Your task to perform on an android device: make emails show in primary in the gmail app Image 0: 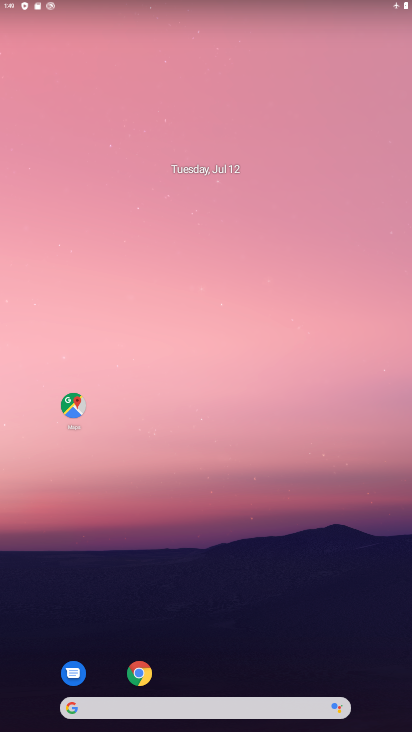
Step 0: drag from (311, 643) to (311, 134)
Your task to perform on an android device: make emails show in primary in the gmail app Image 1: 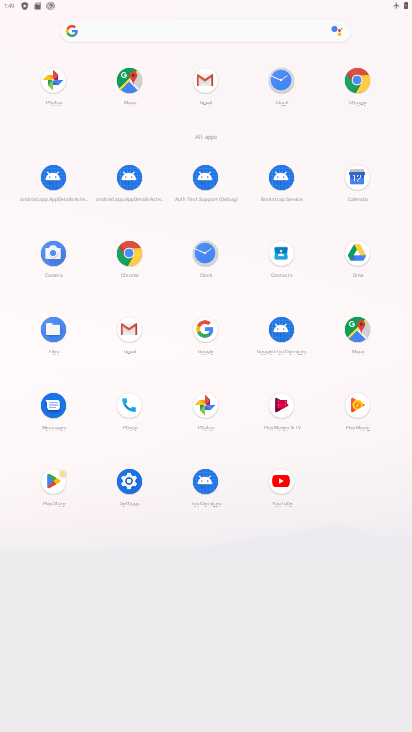
Step 1: click (136, 331)
Your task to perform on an android device: make emails show in primary in the gmail app Image 2: 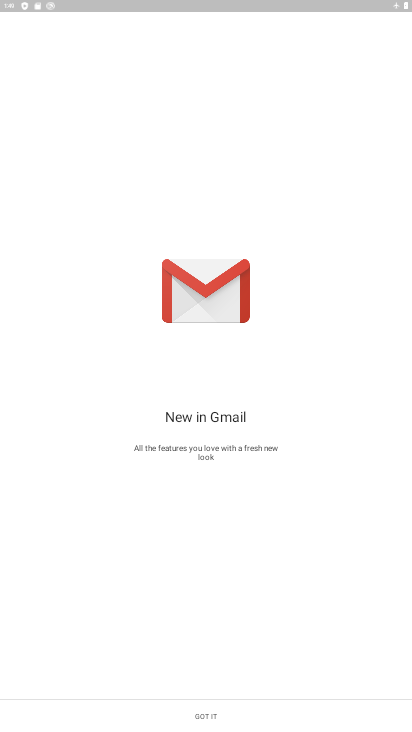
Step 2: click (228, 704)
Your task to perform on an android device: make emails show in primary in the gmail app Image 3: 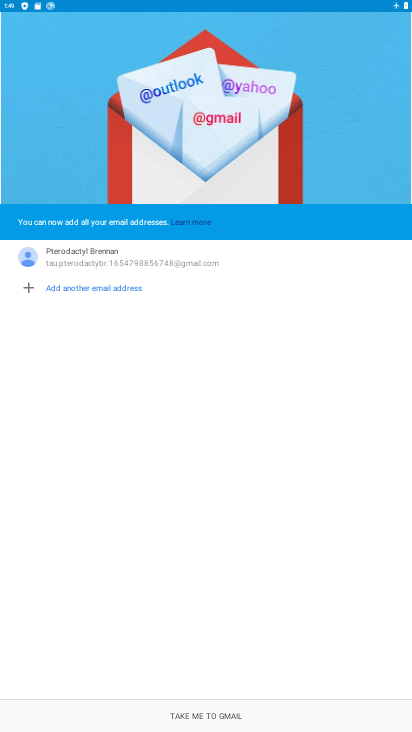
Step 3: click (179, 715)
Your task to perform on an android device: make emails show in primary in the gmail app Image 4: 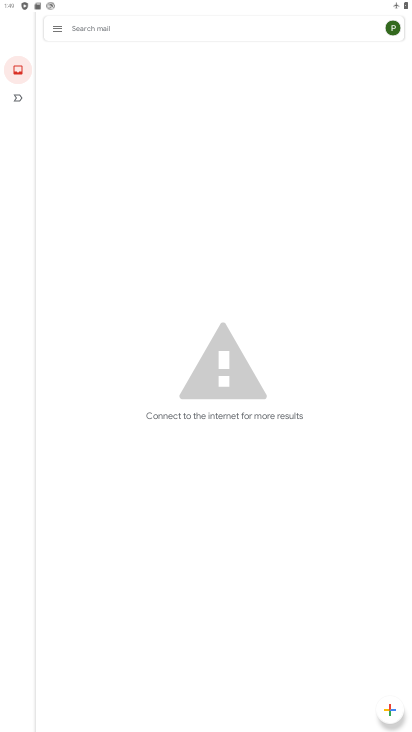
Step 4: task complete